Your task to perform on an android device: Turn on the flashlight Image 0: 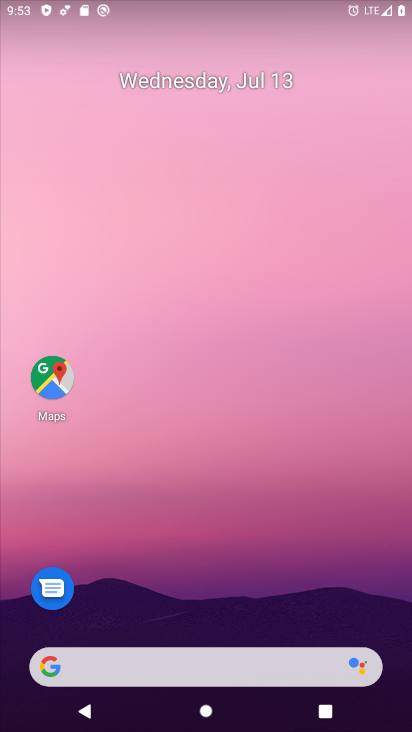
Step 0: drag from (261, 7) to (400, 673)
Your task to perform on an android device: Turn on the flashlight Image 1: 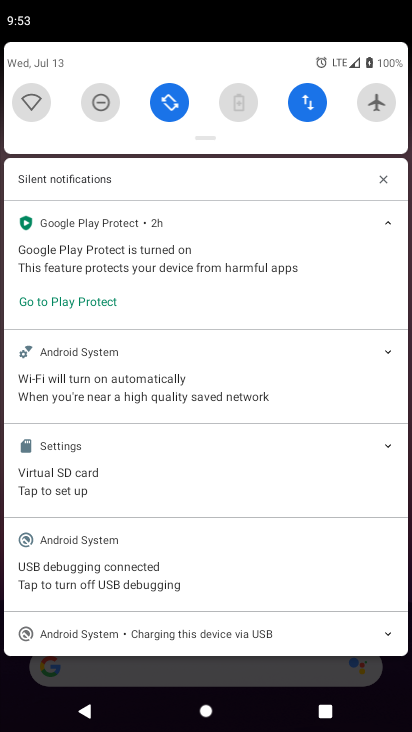
Step 1: task complete